Your task to perform on an android device: change the clock style Image 0: 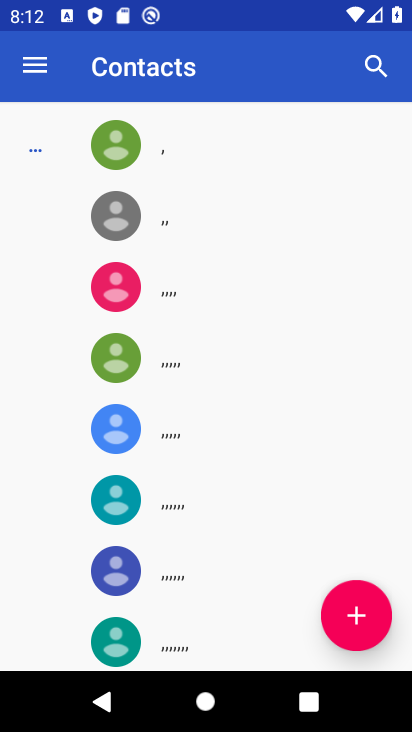
Step 0: press home button
Your task to perform on an android device: change the clock style Image 1: 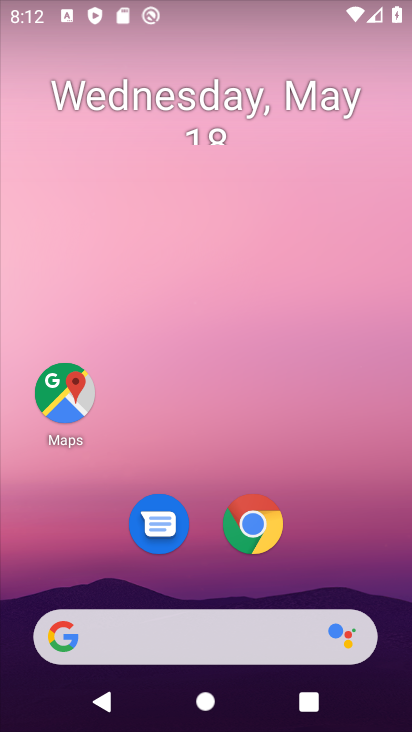
Step 1: drag from (209, 437) to (250, 57)
Your task to perform on an android device: change the clock style Image 2: 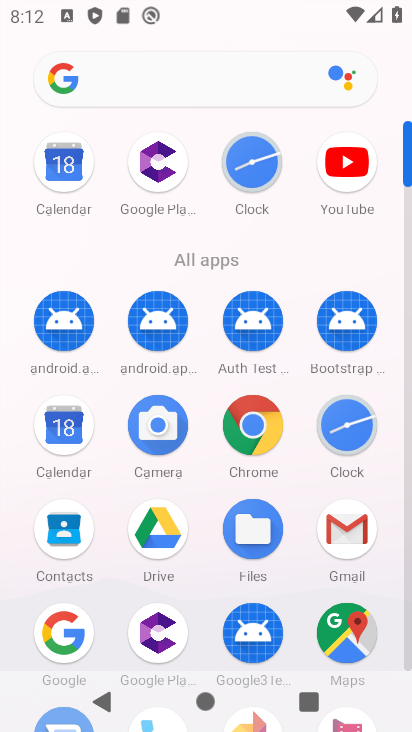
Step 2: click (249, 166)
Your task to perform on an android device: change the clock style Image 3: 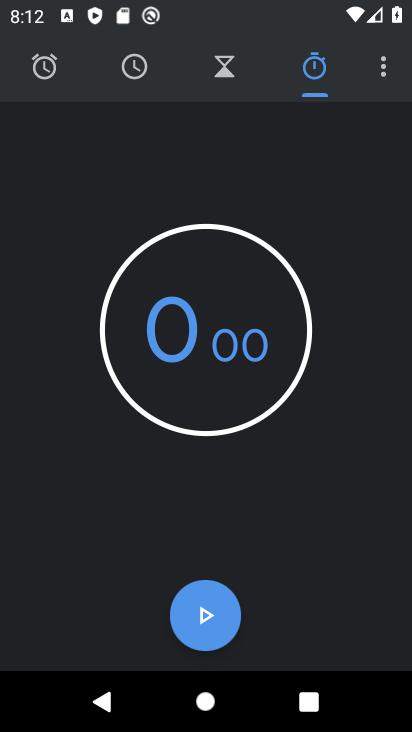
Step 3: click (44, 66)
Your task to perform on an android device: change the clock style Image 4: 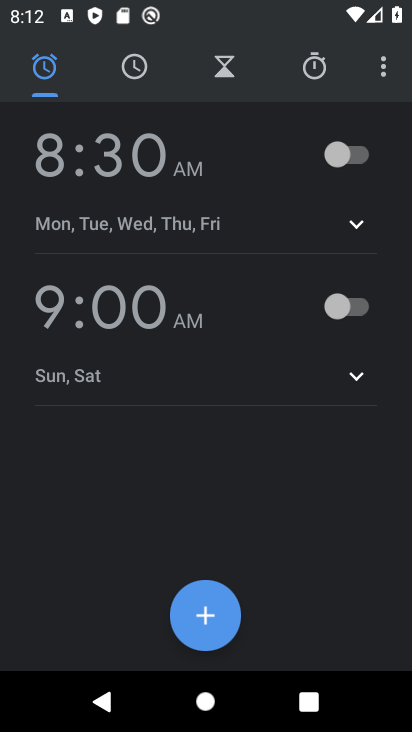
Step 4: click (381, 68)
Your task to perform on an android device: change the clock style Image 5: 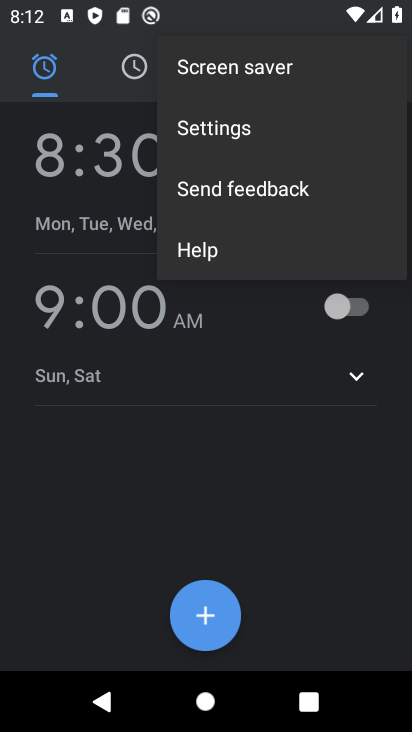
Step 5: click (259, 134)
Your task to perform on an android device: change the clock style Image 6: 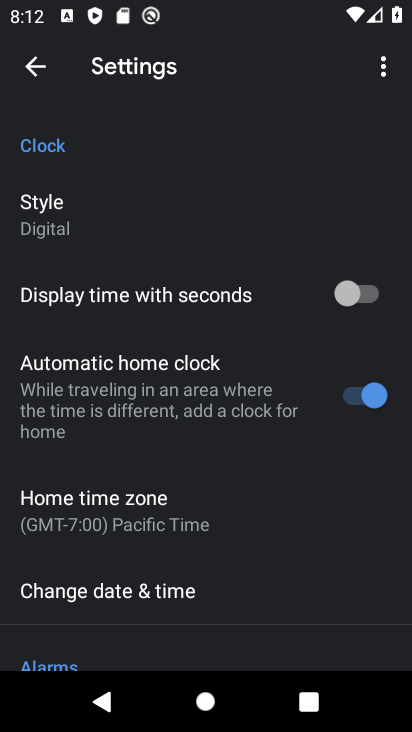
Step 6: click (121, 214)
Your task to perform on an android device: change the clock style Image 7: 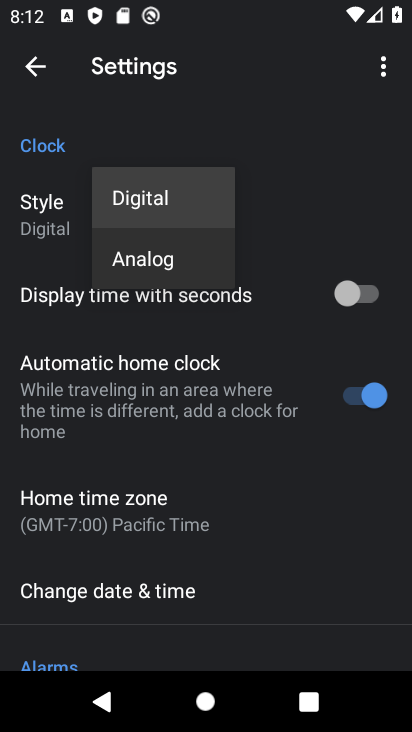
Step 7: click (154, 252)
Your task to perform on an android device: change the clock style Image 8: 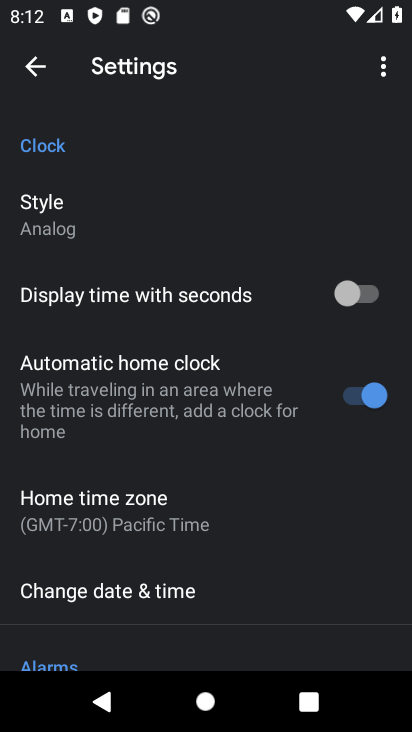
Step 8: click (41, 73)
Your task to perform on an android device: change the clock style Image 9: 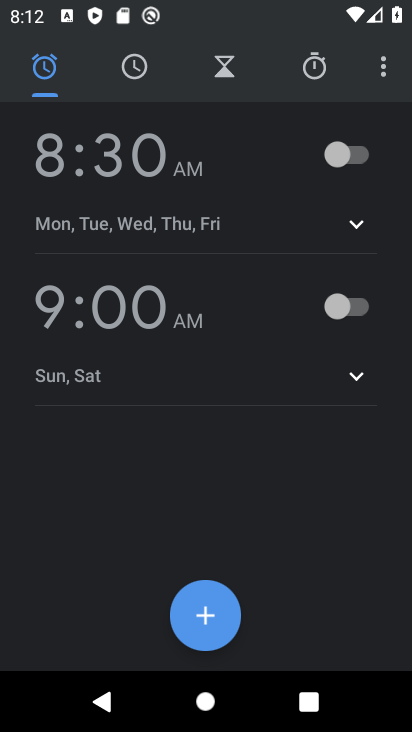
Step 9: click (138, 70)
Your task to perform on an android device: change the clock style Image 10: 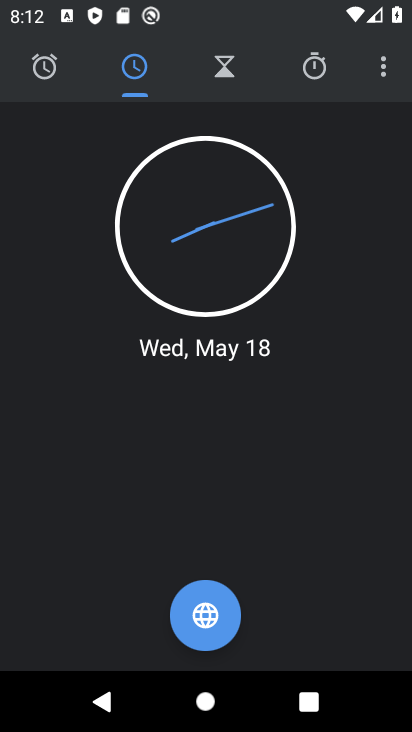
Step 10: task complete